Your task to perform on an android device: Open Chrome and go to the settings page Image 0: 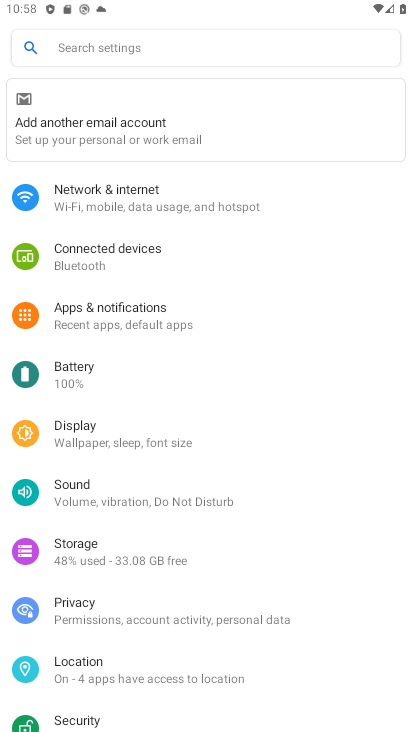
Step 0: press back button
Your task to perform on an android device: Open Chrome and go to the settings page Image 1: 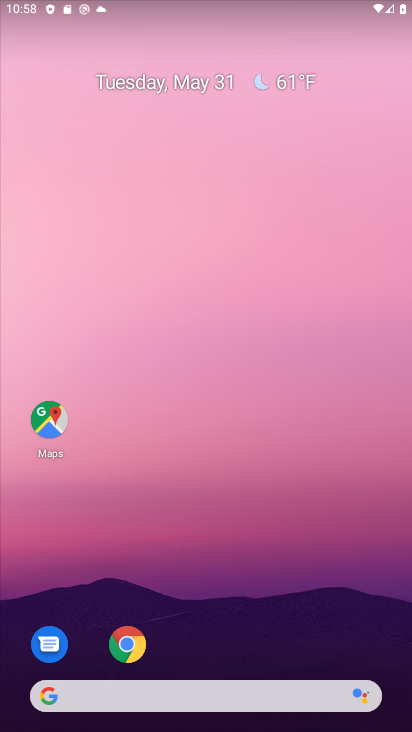
Step 1: click (134, 644)
Your task to perform on an android device: Open Chrome and go to the settings page Image 2: 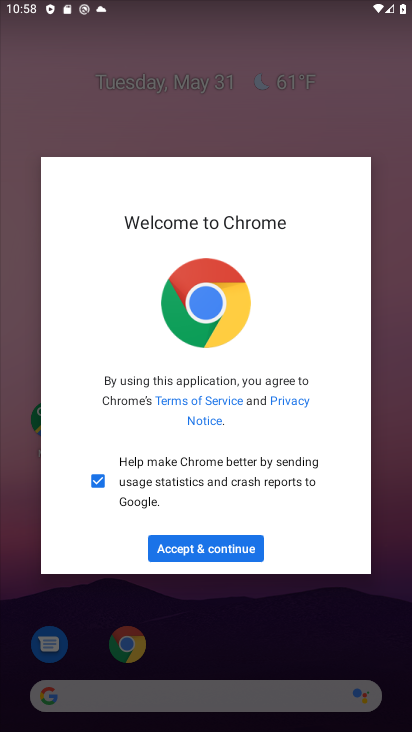
Step 2: click (191, 557)
Your task to perform on an android device: Open Chrome and go to the settings page Image 3: 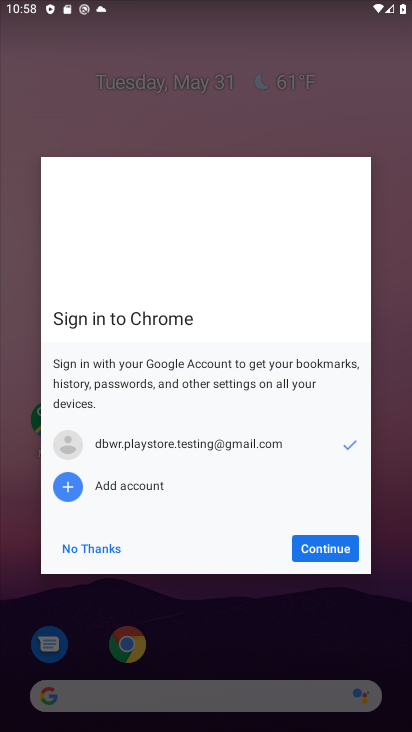
Step 3: click (345, 546)
Your task to perform on an android device: Open Chrome and go to the settings page Image 4: 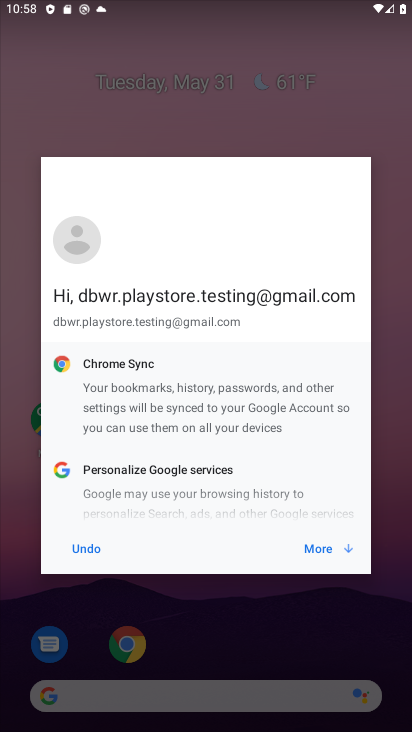
Step 4: click (342, 546)
Your task to perform on an android device: Open Chrome and go to the settings page Image 5: 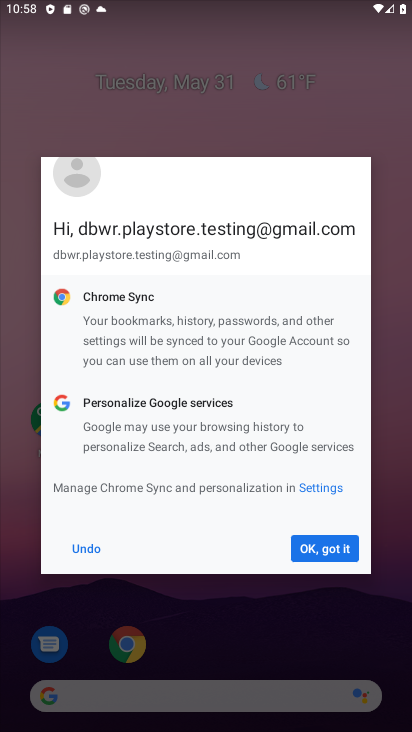
Step 5: click (341, 544)
Your task to perform on an android device: Open Chrome and go to the settings page Image 6: 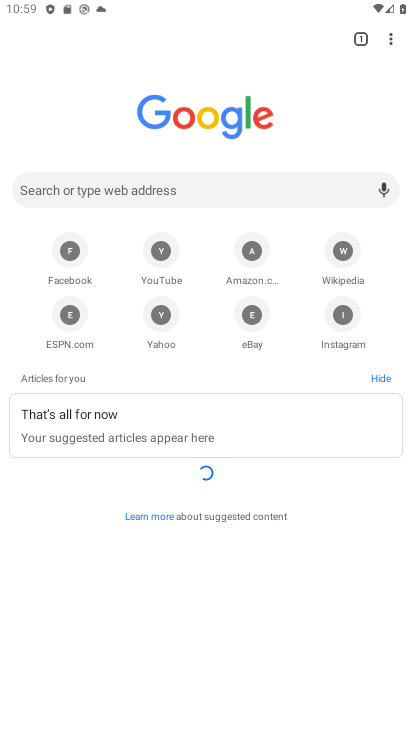
Step 6: task complete